Your task to perform on an android device: turn on wifi Image 0: 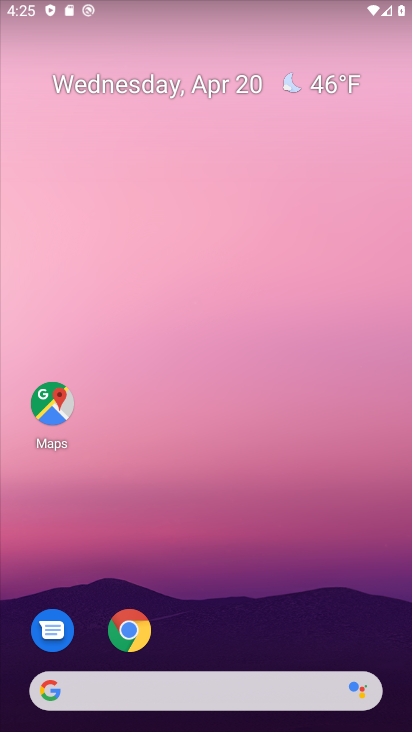
Step 0: click (276, 285)
Your task to perform on an android device: turn on wifi Image 1: 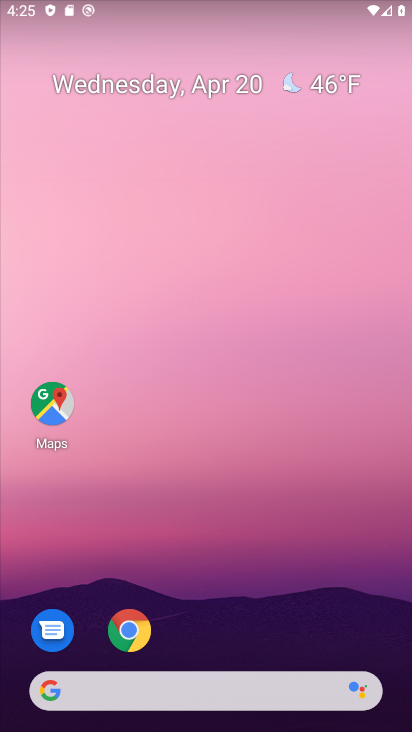
Step 1: drag from (250, 647) to (292, 478)
Your task to perform on an android device: turn on wifi Image 2: 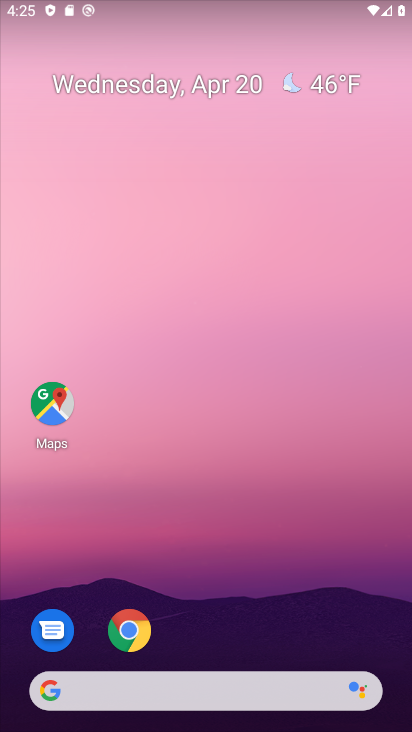
Step 2: drag from (374, 292) to (411, 212)
Your task to perform on an android device: turn on wifi Image 3: 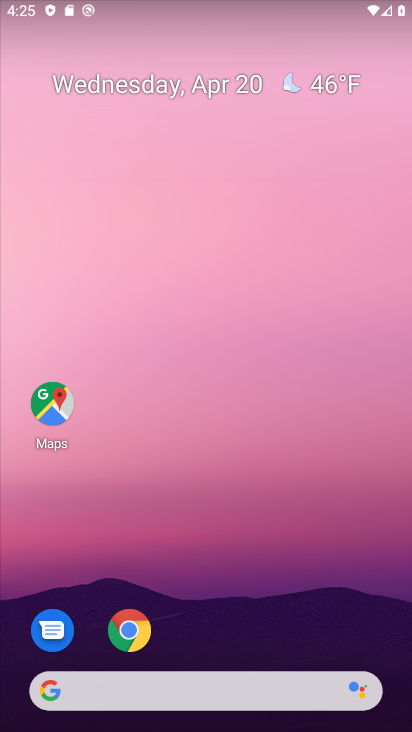
Step 3: drag from (198, 672) to (302, 300)
Your task to perform on an android device: turn on wifi Image 4: 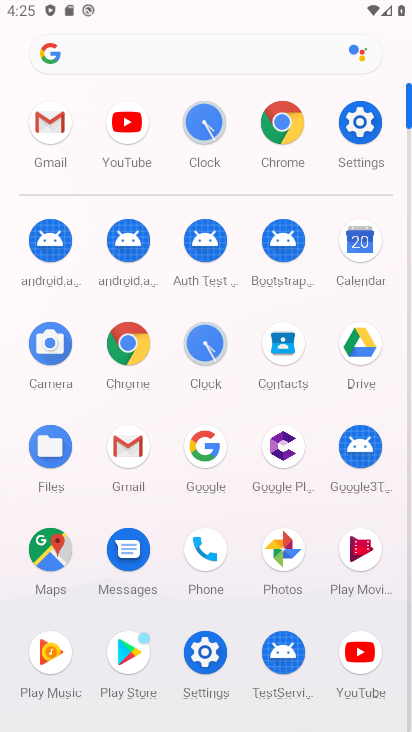
Step 4: click (364, 128)
Your task to perform on an android device: turn on wifi Image 5: 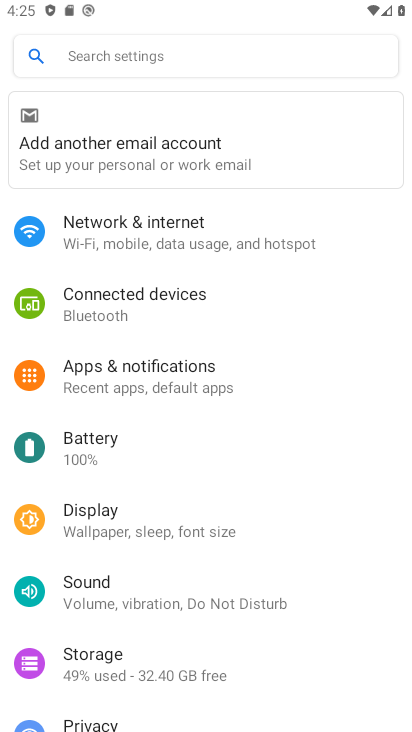
Step 5: click (179, 216)
Your task to perform on an android device: turn on wifi Image 6: 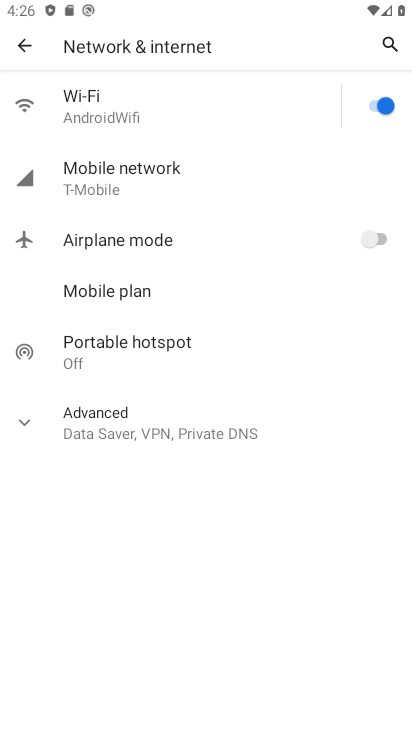
Step 6: task complete